Your task to perform on an android device: empty trash in the gmail app Image 0: 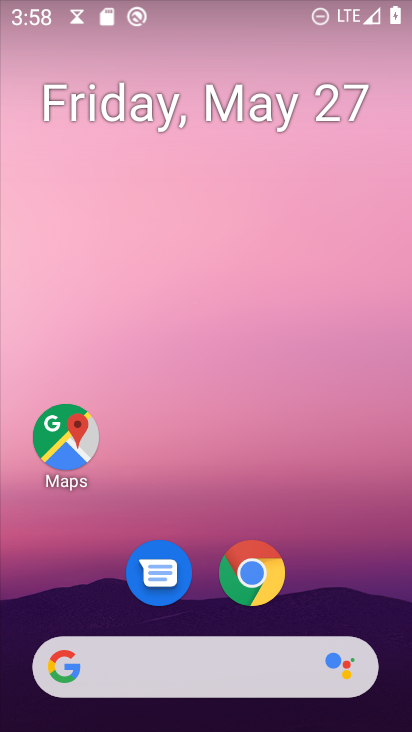
Step 0: drag from (330, 447) to (335, 9)
Your task to perform on an android device: empty trash in the gmail app Image 1: 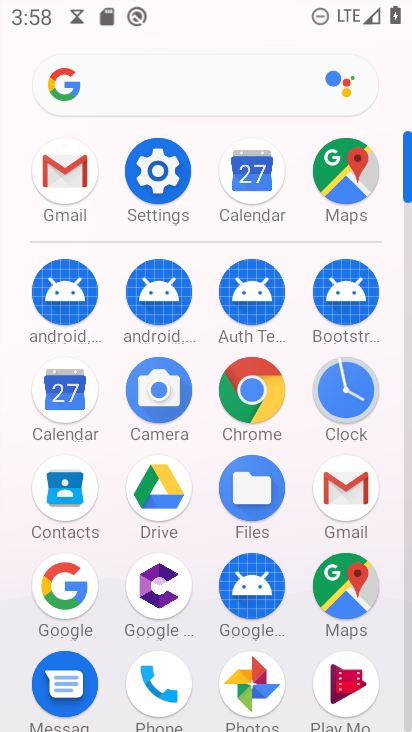
Step 1: click (66, 176)
Your task to perform on an android device: empty trash in the gmail app Image 2: 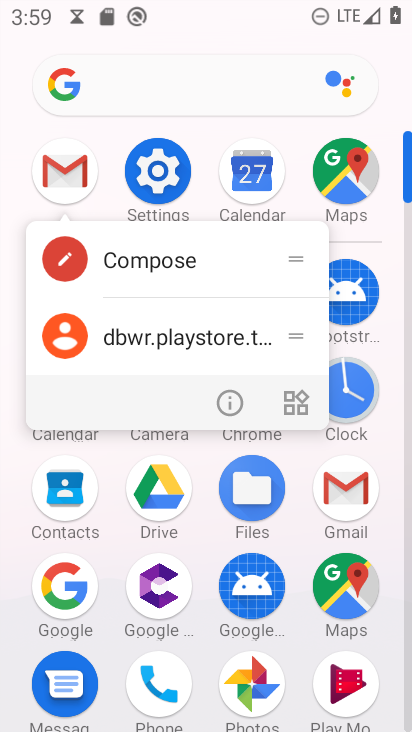
Step 2: click (73, 173)
Your task to perform on an android device: empty trash in the gmail app Image 3: 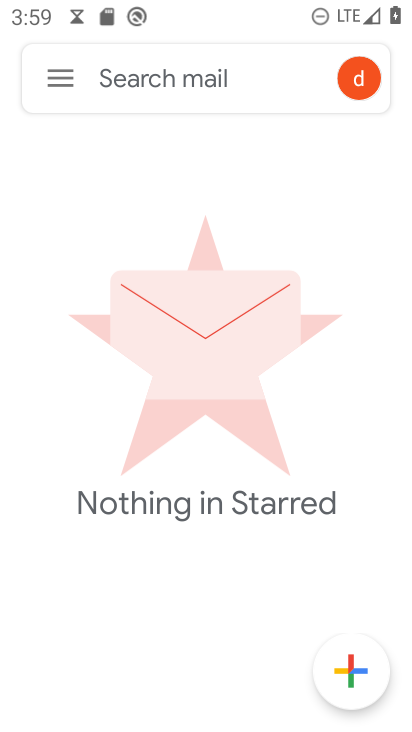
Step 3: click (53, 71)
Your task to perform on an android device: empty trash in the gmail app Image 4: 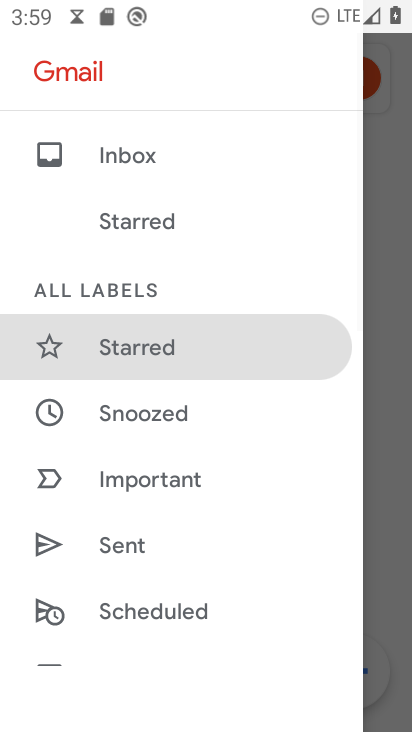
Step 4: drag from (127, 599) to (176, 252)
Your task to perform on an android device: empty trash in the gmail app Image 5: 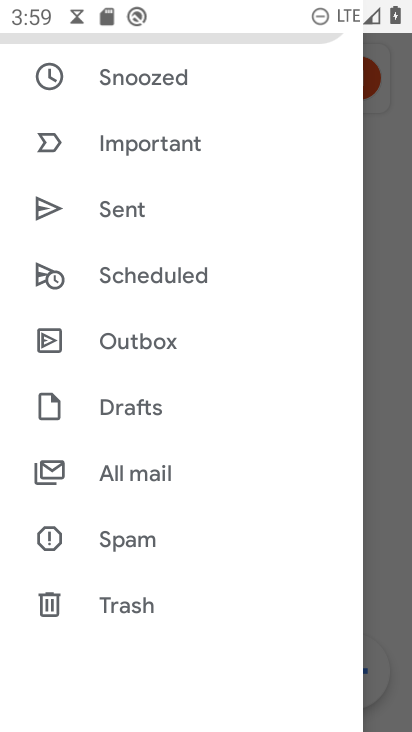
Step 5: click (118, 596)
Your task to perform on an android device: empty trash in the gmail app Image 6: 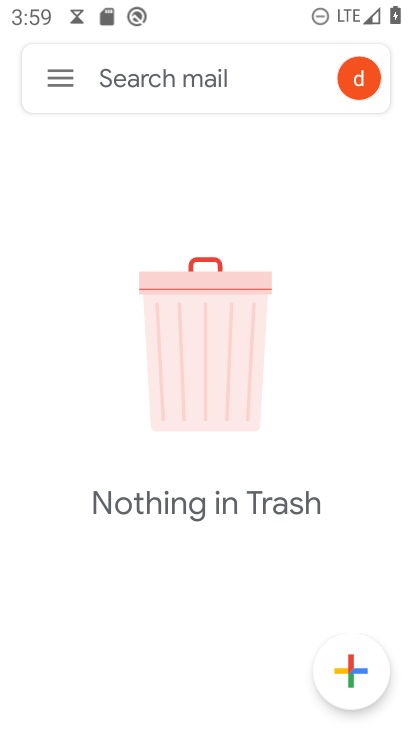
Step 6: task complete